Your task to perform on an android device: refresh tabs in the chrome app Image 0: 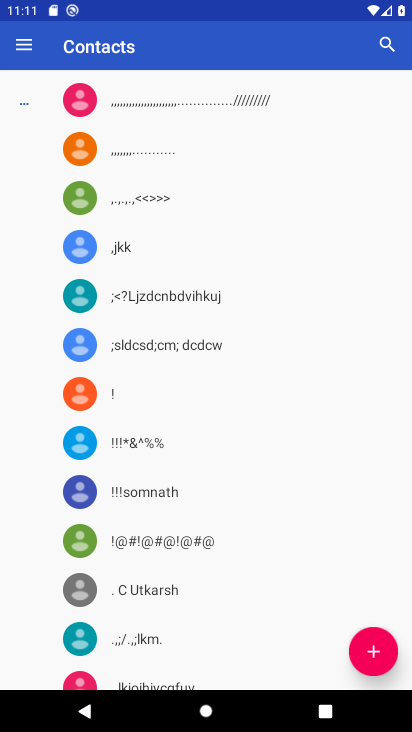
Step 0: press home button
Your task to perform on an android device: refresh tabs in the chrome app Image 1: 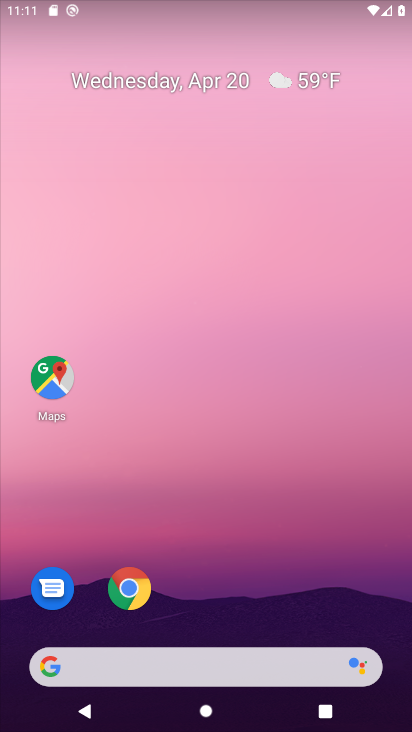
Step 1: click (122, 591)
Your task to perform on an android device: refresh tabs in the chrome app Image 2: 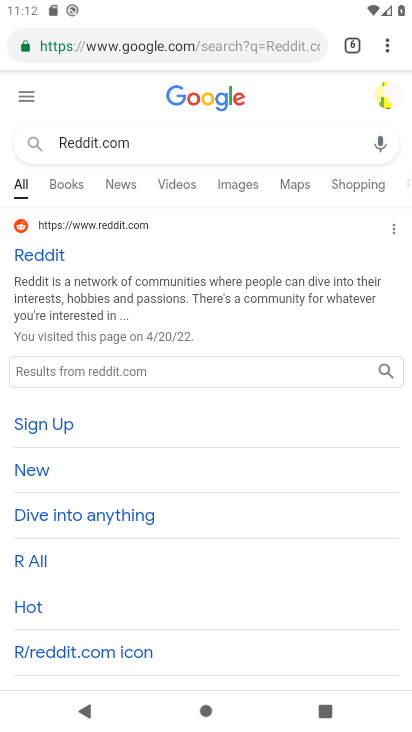
Step 2: click (379, 49)
Your task to perform on an android device: refresh tabs in the chrome app Image 3: 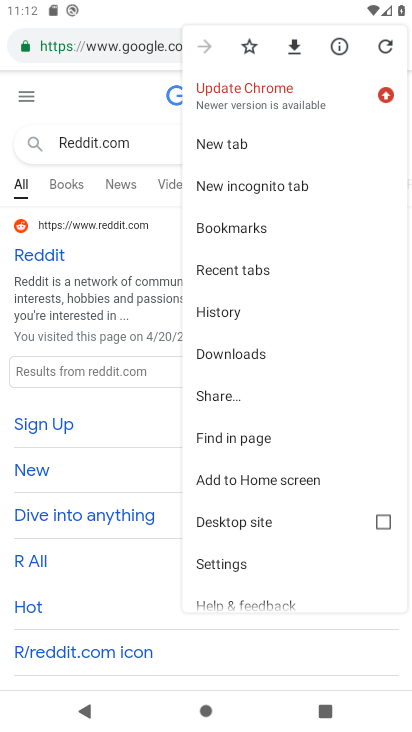
Step 3: click (378, 44)
Your task to perform on an android device: refresh tabs in the chrome app Image 4: 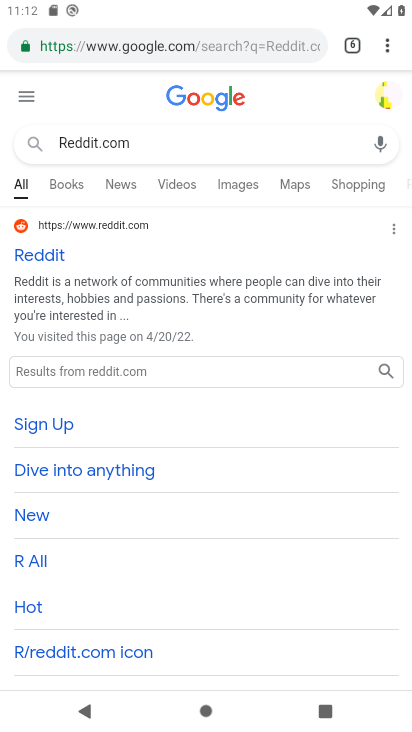
Step 4: task complete